Your task to perform on an android device: Open Amazon Image 0: 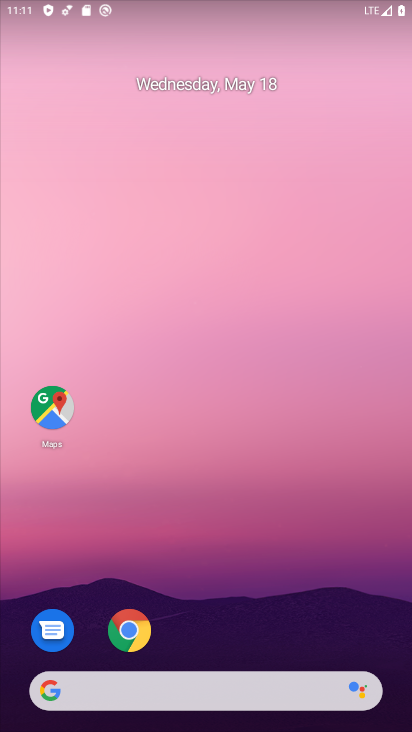
Step 0: click (146, 637)
Your task to perform on an android device: Open Amazon Image 1: 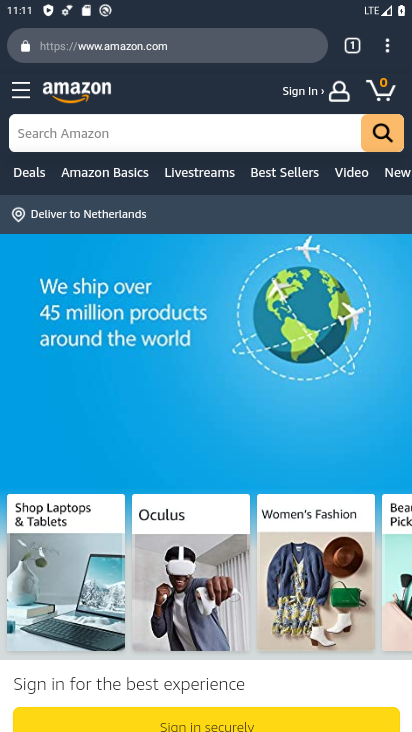
Step 1: task complete